Your task to perform on an android device: change the clock display to digital Image 0: 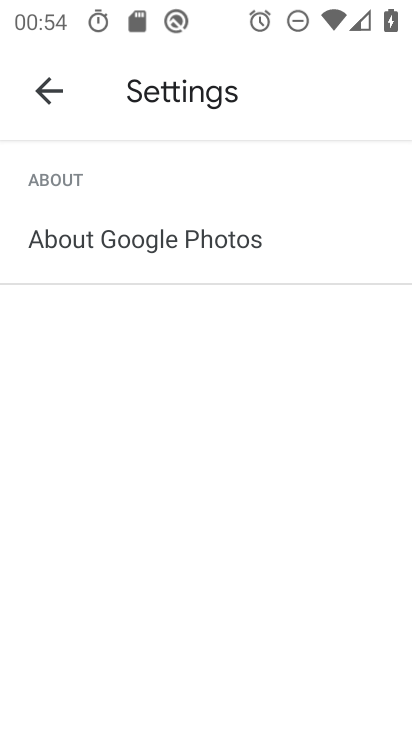
Step 0: press home button
Your task to perform on an android device: change the clock display to digital Image 1: 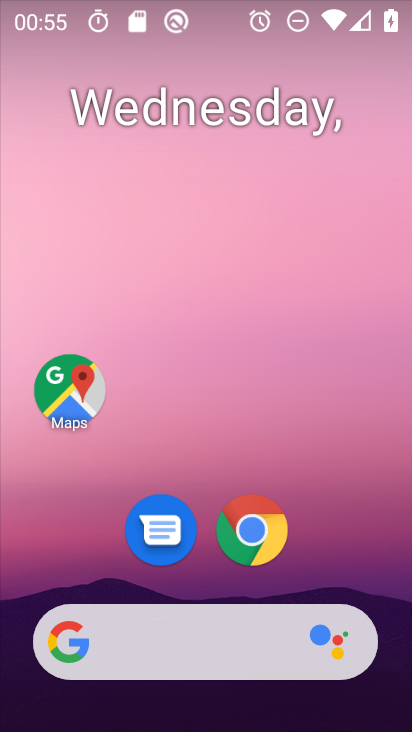
Step 1: drag from (229, 461) to (279, 33)
Your task to perform on an android device: change the clock display to digital Image 2: 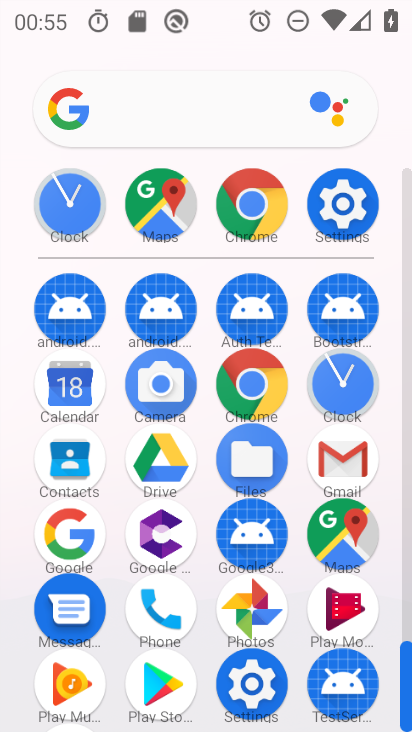
Step 2: click (340, 399)
Your task to perform on an android device: change the clock display to digital Image 3: 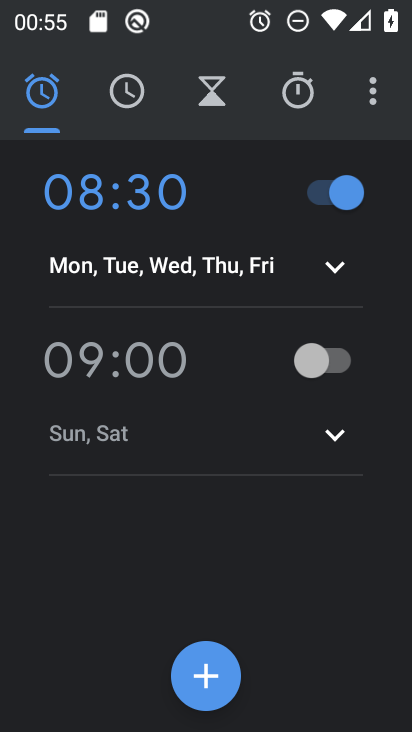
Step 3: click (364, 93)
Your task to perform on an android device: change the clock display to digital Image 4: 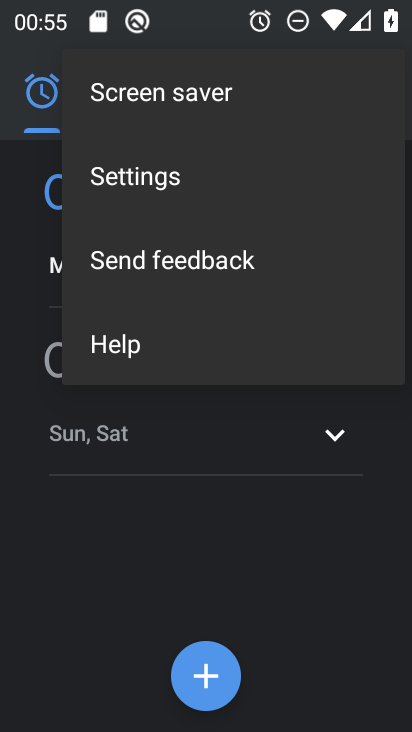
Step 4: click (217, 133)
Your task to perform on an android device: change the clock display to digital Image 5: 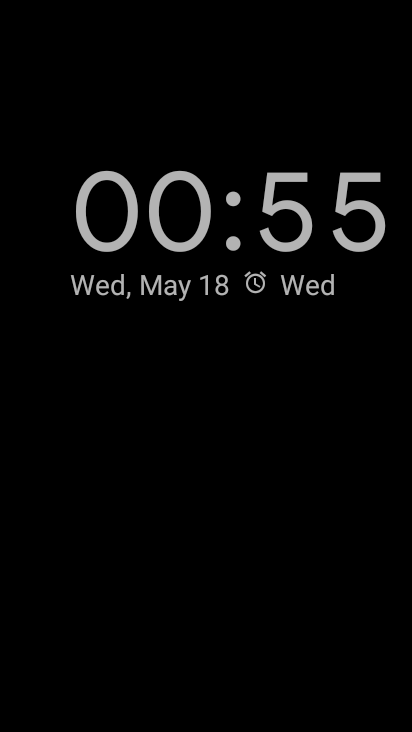
Step 5: press back button
Your task to perform on an android device: change the clock display to digital Image 6: 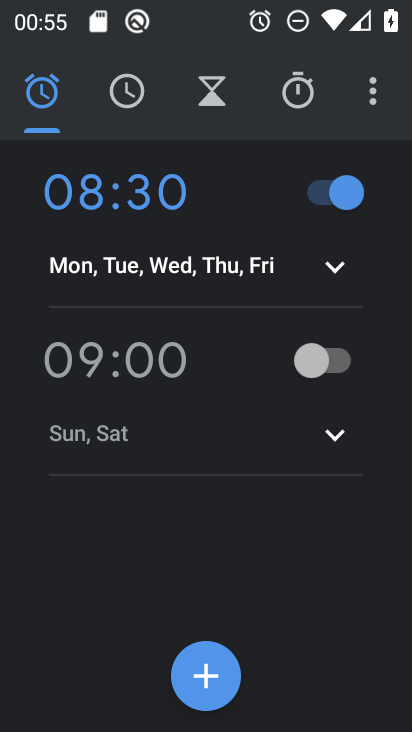
Step 6: click (390, 82)
Your task to perform on an android device: change the clock display to digital Image 7: 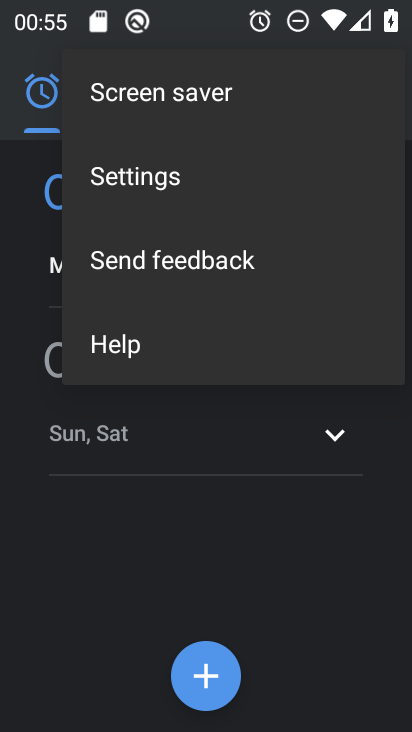
Step 7: click (238, 175)
Your task to perform on an android device: change the clock display to digital Image 8: 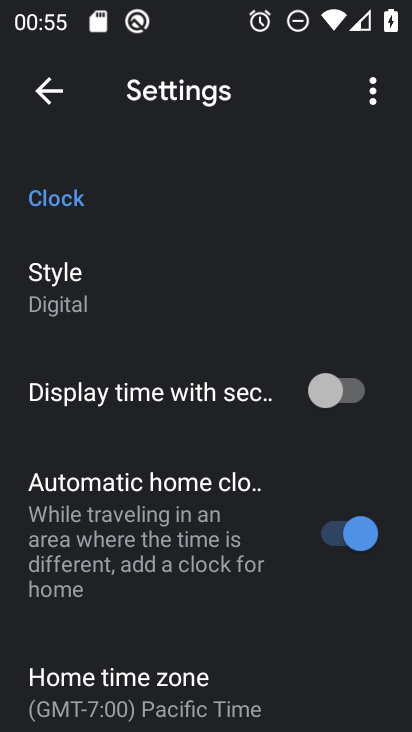
Step 8: task complete